Your task to perform on an android device: Open Youtube and go to the subscriptions tab Image 0: 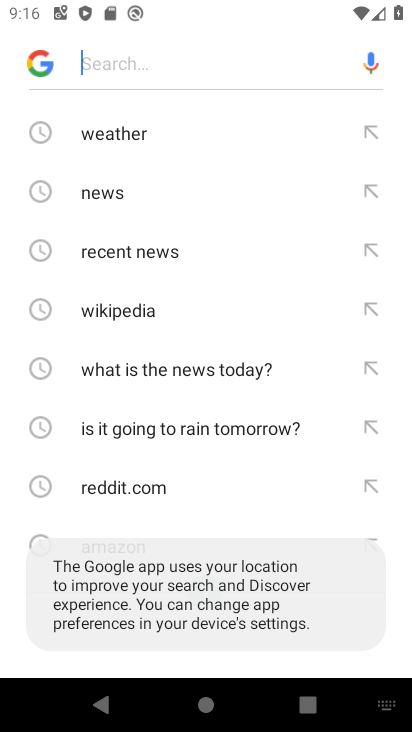
Step 0: press home button
Your task to perform on an android device: Open Youtube and go to the subscriptions tab Image 1: 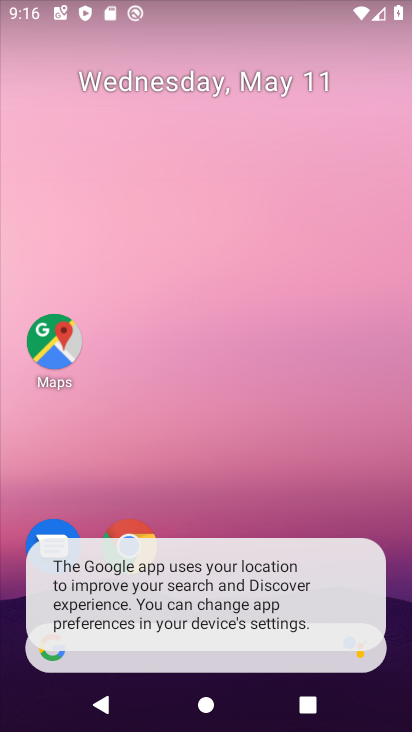
Step 1: drag from (388, 639) to (264, 37)
Your task to perform on an android device: Open Youtube and go to the subscriptions tab Image 2: 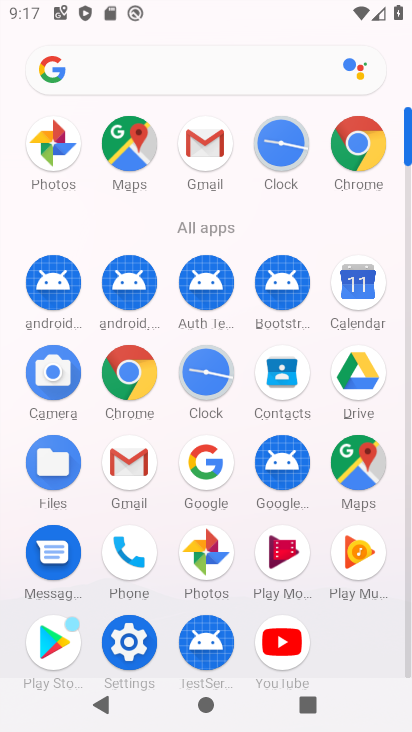
Step 2: click (290, 632)
Your task to perform on an android device: Open Youtube and go to the subscriptions tab Image 3: 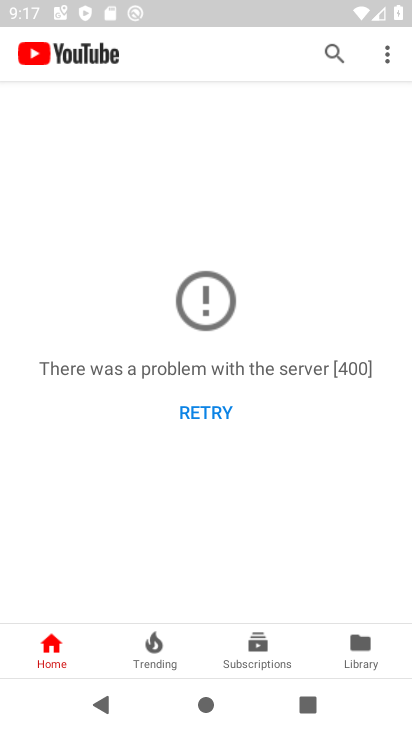
Step 3: click (263, 650)
Your task to perform on an android device: Open Youtube and go to the subscriptions tab Image 4: 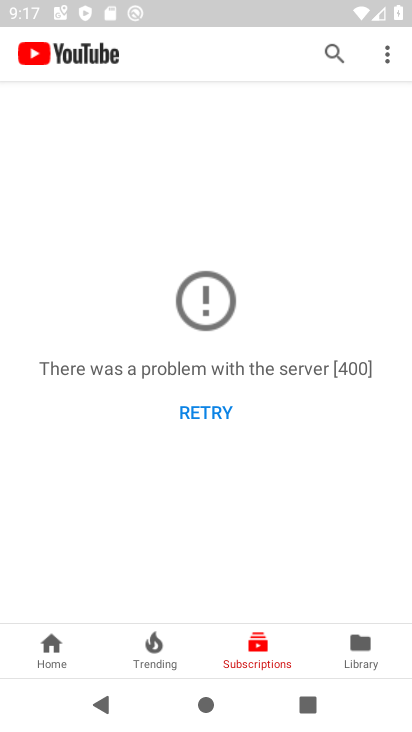
Step 4: click (190, 411)
Your task to perform on an android device: Open Youtube and go to the subscriptions tab Image 5: 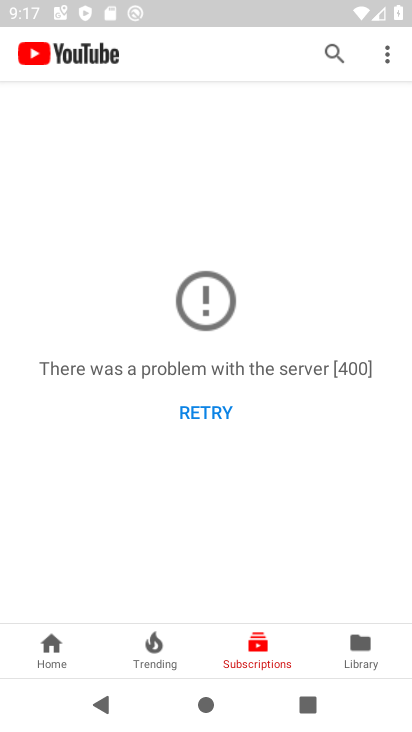
Step 5: click (190, 411)
Your task to perform on an android device: Open Youtube and go to the subscriptions tab Image 6: 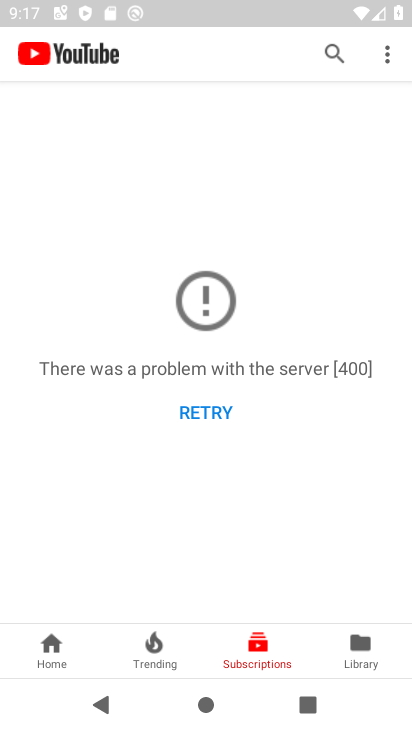
Step 6: click (218, 416)
Your task to perform on an android device: Open Youtube and go to the subscriptions tab Image 7: 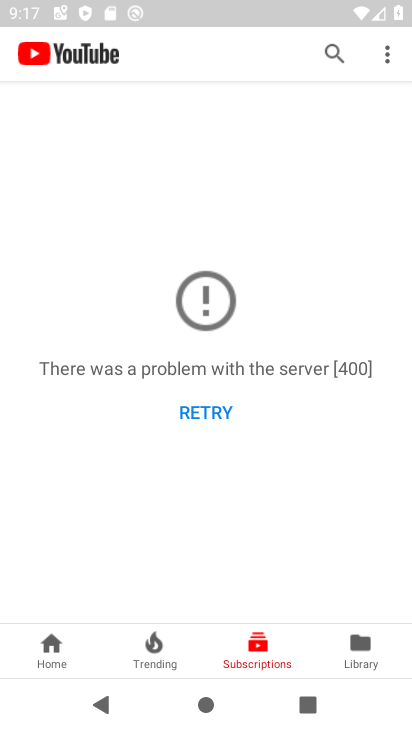
Step 7: click (208, 408)
Your task to perform on an android device: Open Youtube and go to the subscriptions tab Image 8: 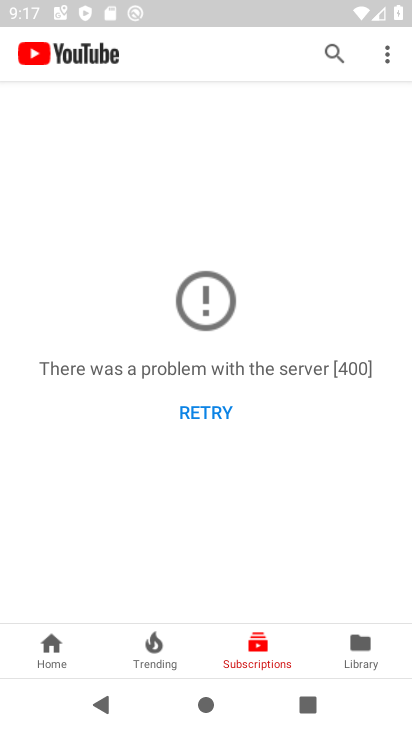
Step 8: task complete